Your task to perform on an android device: Open accessibility settings Image 0: 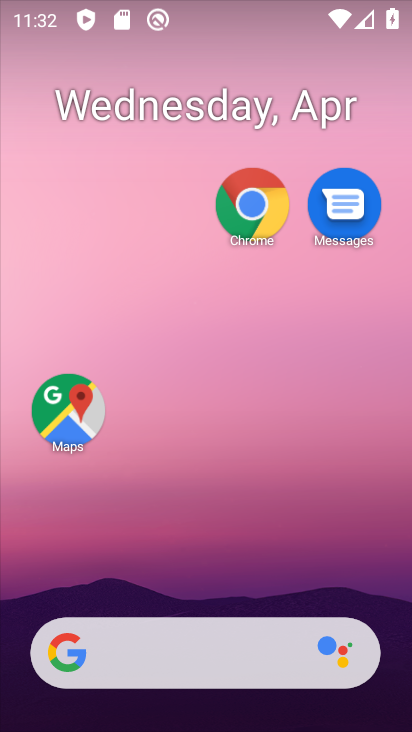
Step 0: drag from (197, 589) to (223, 58)
Your task to perform on an android device: Open accessibility settings Image 1: 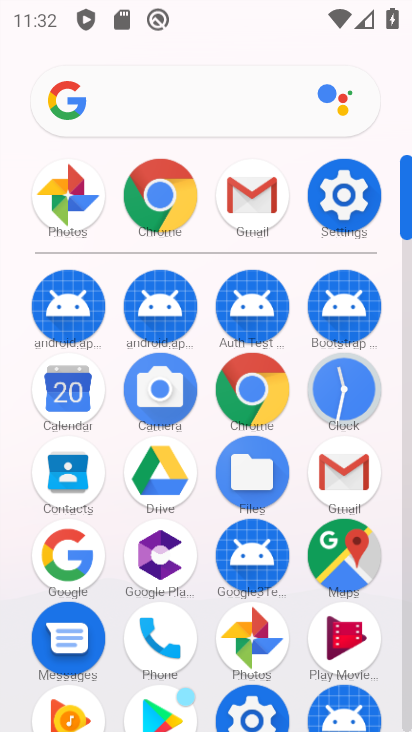
Step 1: click (345, 205)
Your task to perform on an android device: Open accessibility settings Image 2: 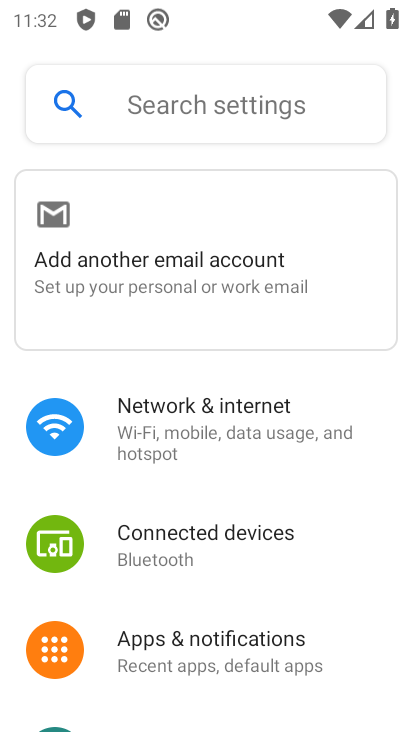
Step 2: drag from (180, 559) to (163, 15)
Your task to perform on an android device: Open accessibility settings Image 3: 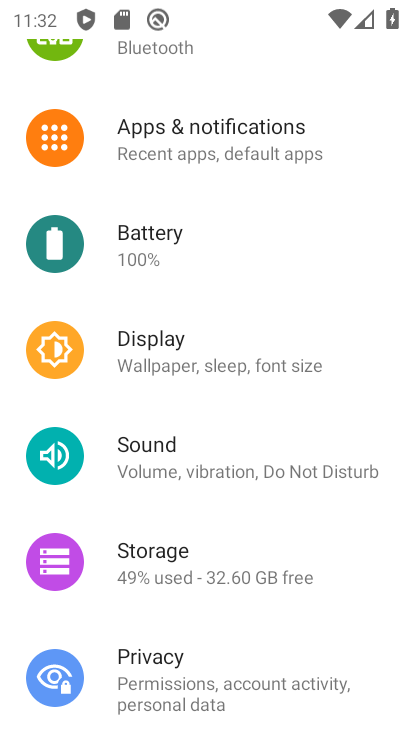
Step 3: drag from (292, 640) to (207, 47)
Your task to perform on an android device: Open accessibility settings Image 4: 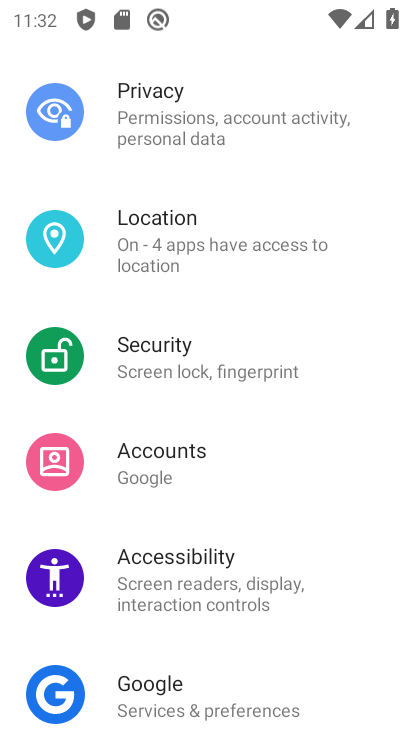
Step 4: click (210, 560)
Your task to perform on an android device: Open accessibility settings Image 5: 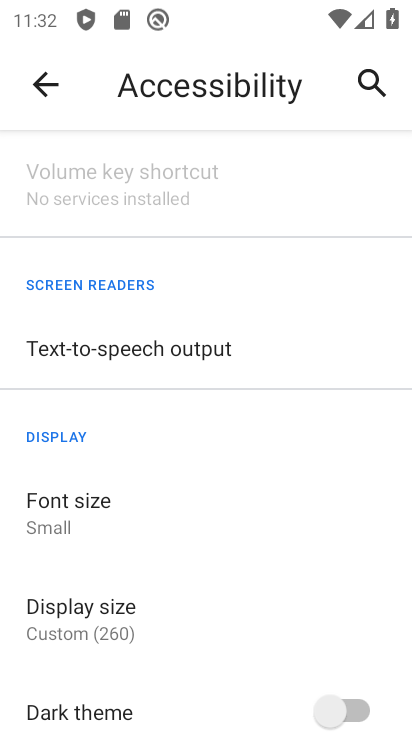
Step 5: task complete